Your task to perform on an android device: turn pop-ups on in chrome Image 0: 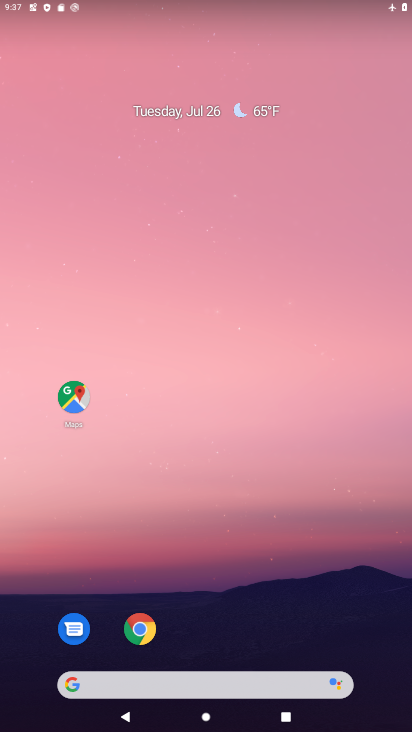
Step 0: drag from (314, 596) to (320, 62)
Your task to perform on an android device: turn pop-ups on in chrome Image 1: 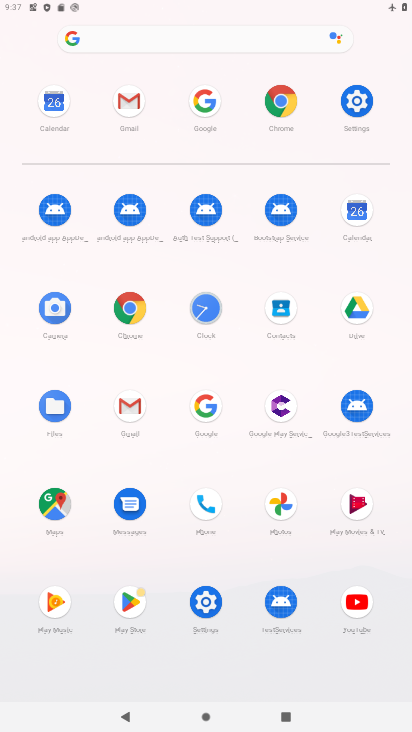
Step 1: click (282, 105)
Your task to perform on an android device: turn pop-ups on in chrome Image 2: 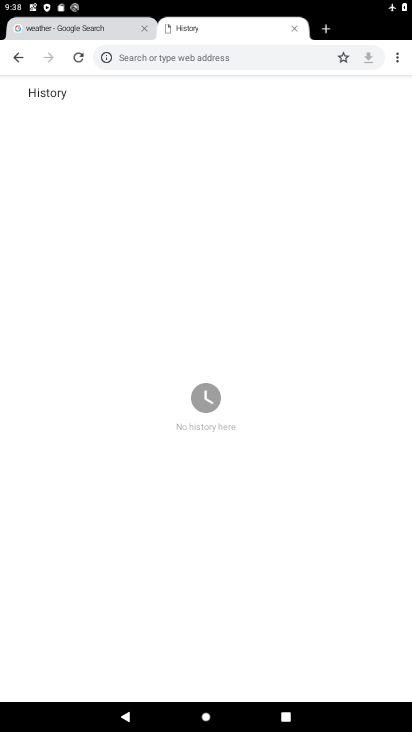
Step 2: drag from (397, 54) to (308, 266)
Your task to perform on an android device: turn pop-ups on in chrome Image 3: 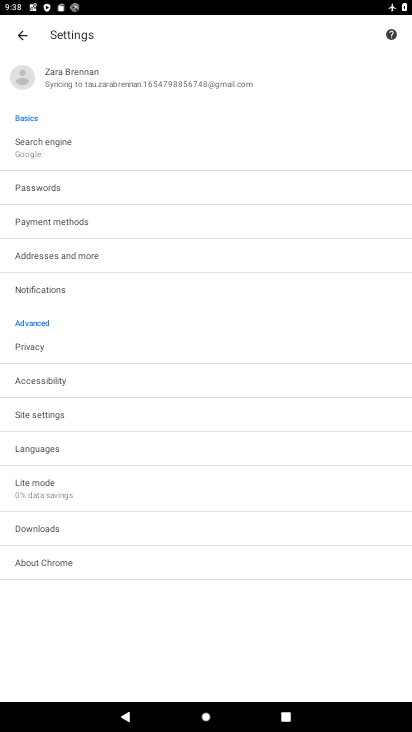
Step 3: click (69, 412)
Your task to perform on an android device: turn pop-ups on in chrome Image 4: 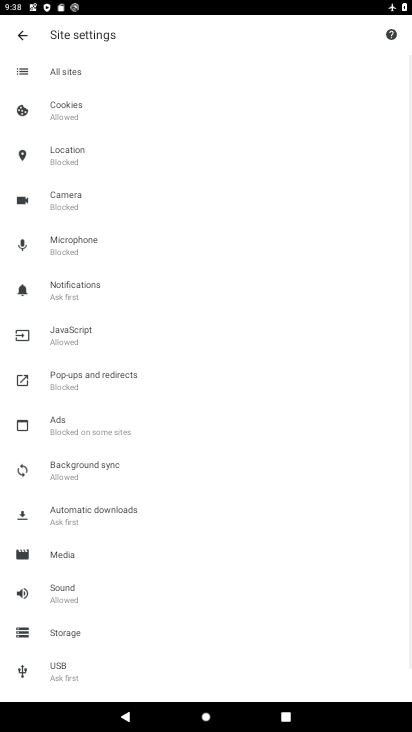
Step 4: click (90, 390)
Your task to perform on an android device: turn pop-ups on in chrome Image 5: 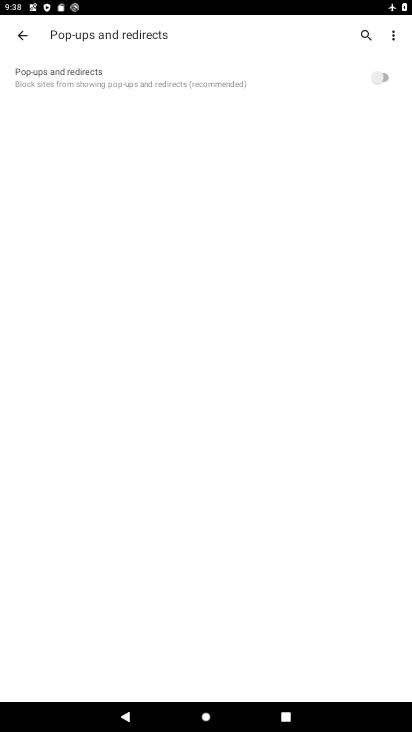
Step 5: click (379, 76)
Your task to perform on an android device: turn pop-ups on in chrome Image 6: 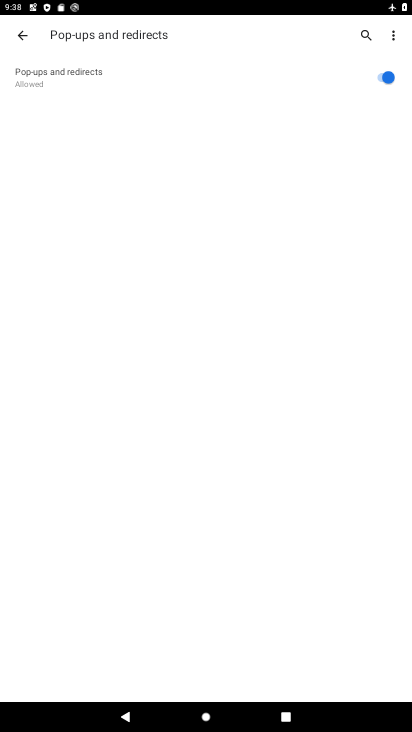
Step 6: task complete